Your task to perform on an android device: turn off location history Image 0: 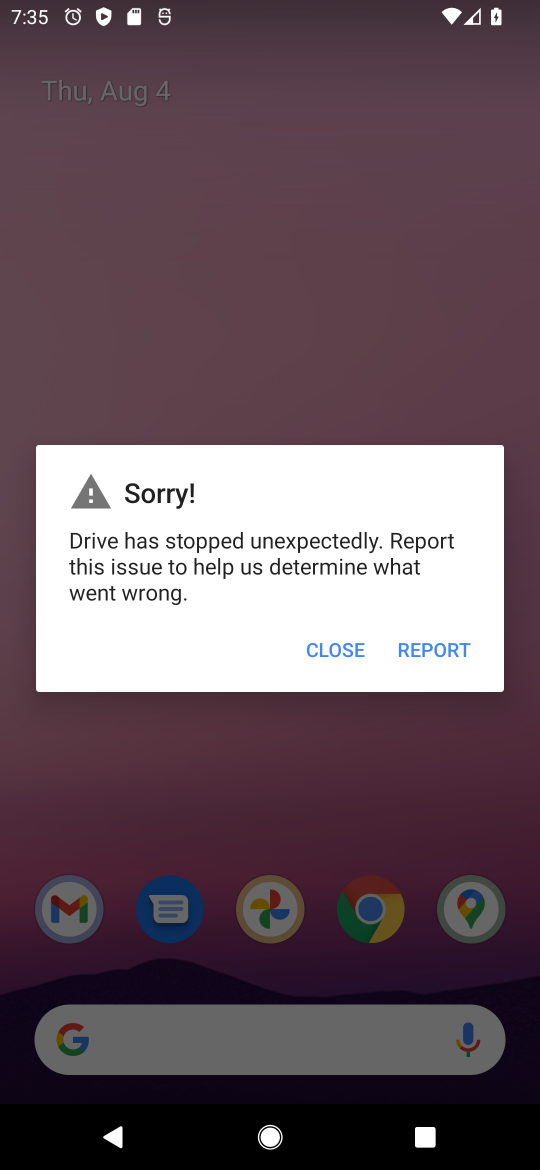
Step 0: click (313, 644)
Your task to perform on an android device: turn off location history Image 1: 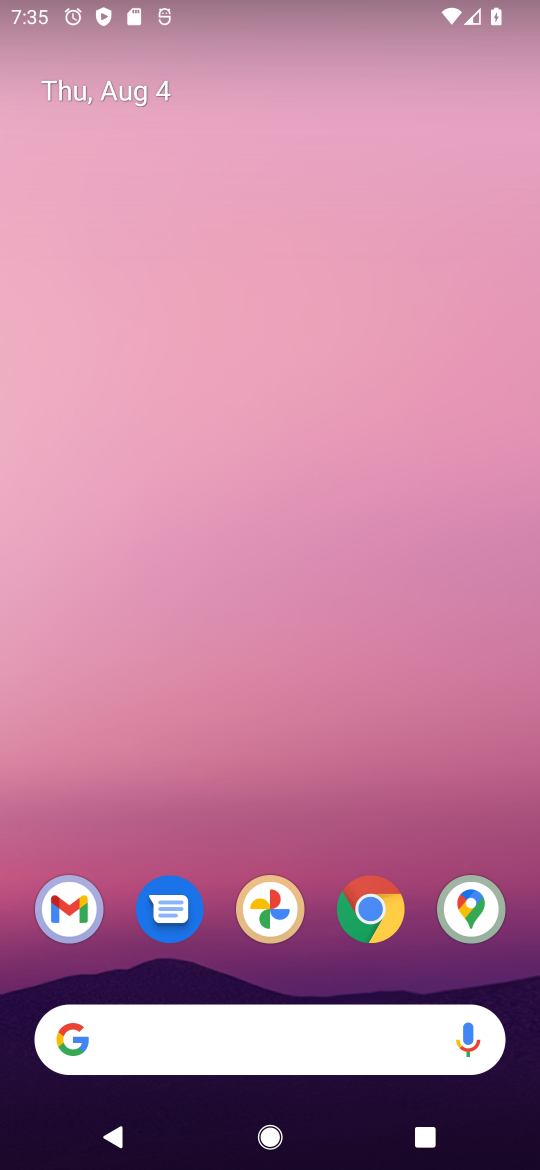
Step 1: drag from (274, 998) to (46, 37)
Your task to perform on an android device: turn off location history Image 2: 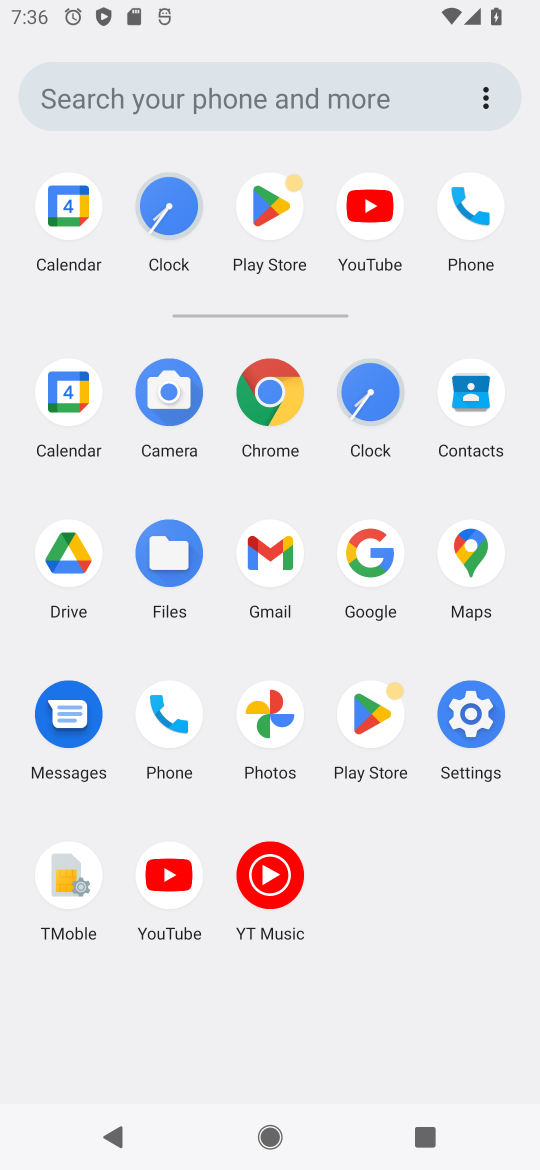
Step 2: click (458, 712)
Your task to perform on an android device: turn off location history Image 3: 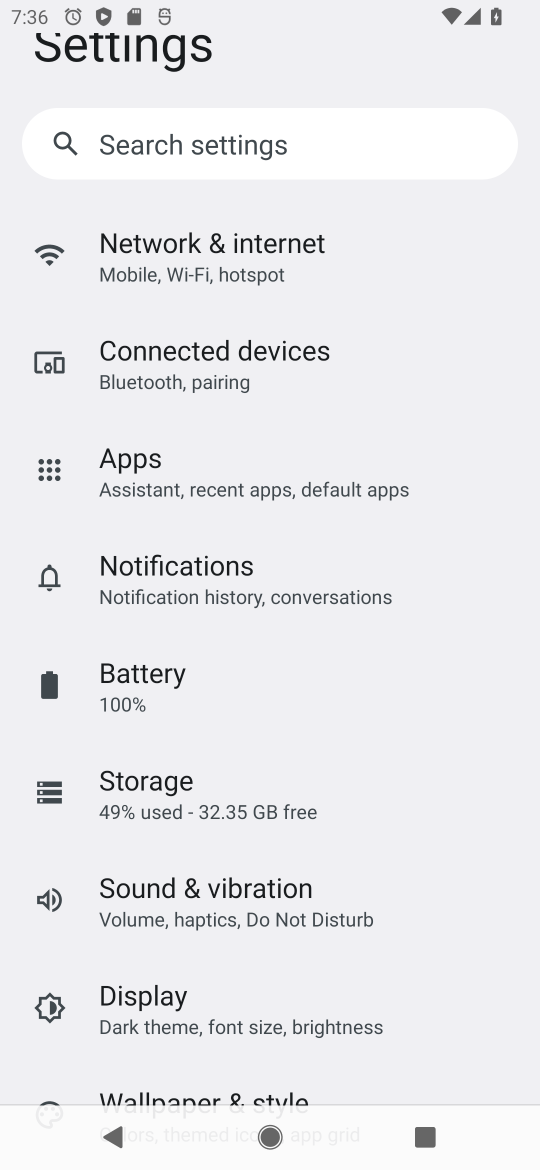
Step 3: drag from (259, 899) to (385, 286)
Your task to perform on an android device: turn off location history Image 4: 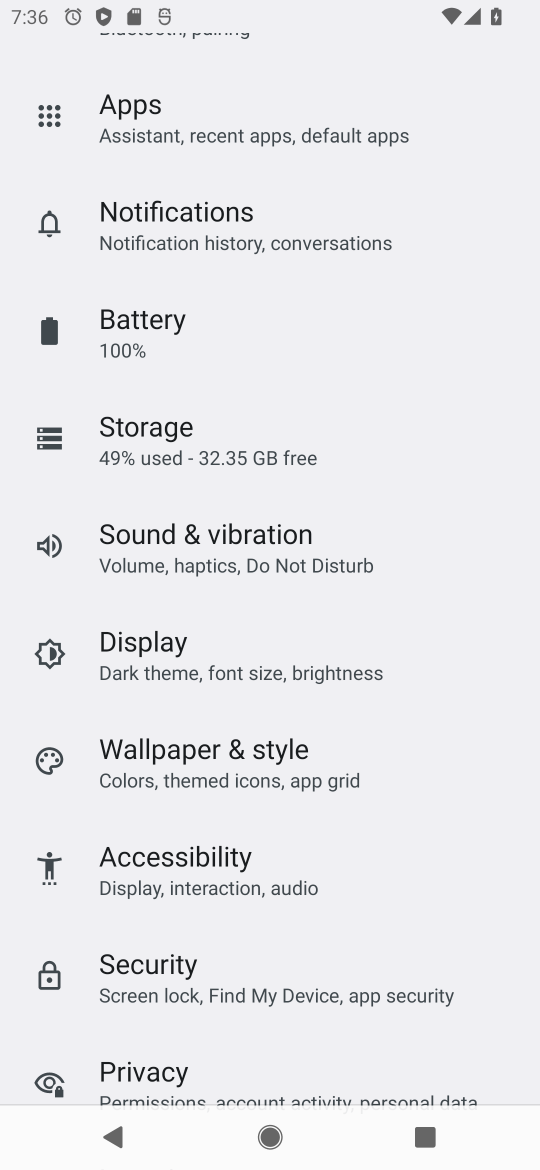
Step 4: drag from (315, 944) to (445, 293)
Your task to perform on an android device: turn off location history Image 5: 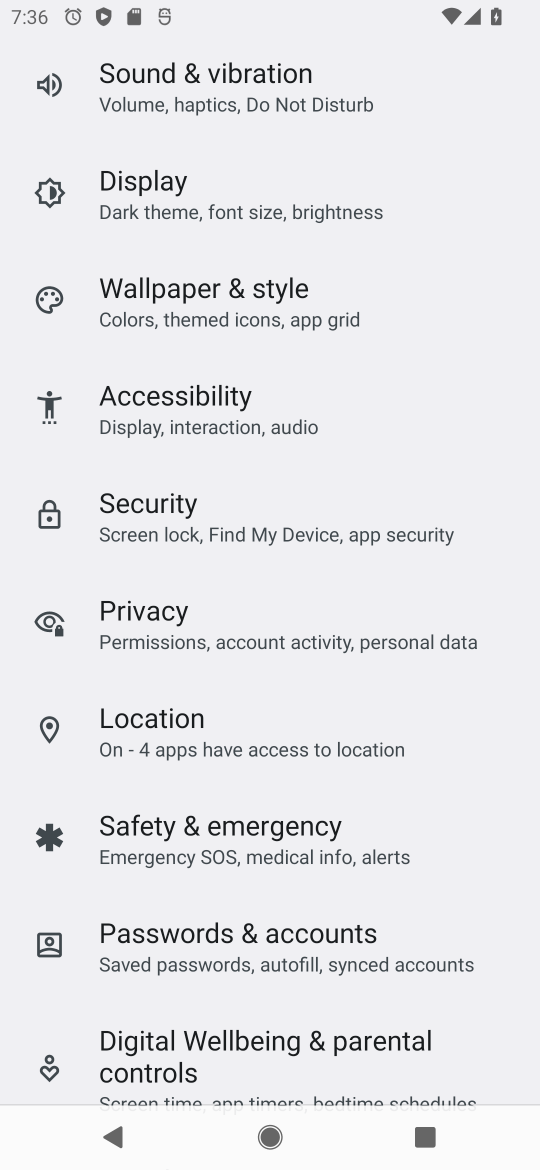
Step 5: click (168, 738)
Your task to perform on an android device: turn off location history Image 6: 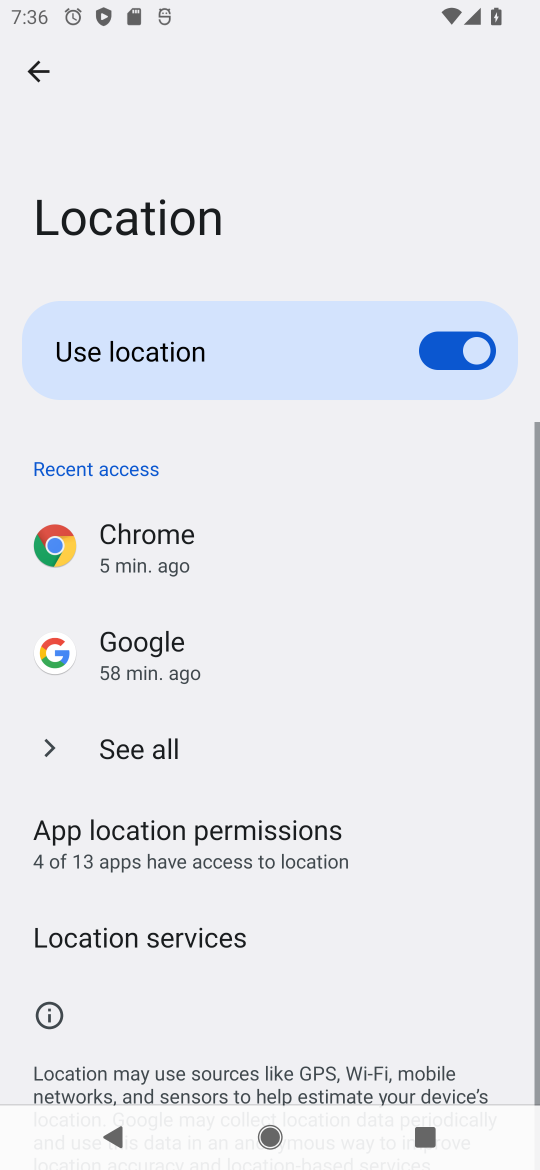
Step 6: click (439, 346)
Your task to perform on an android device: turn off location history Image 7: 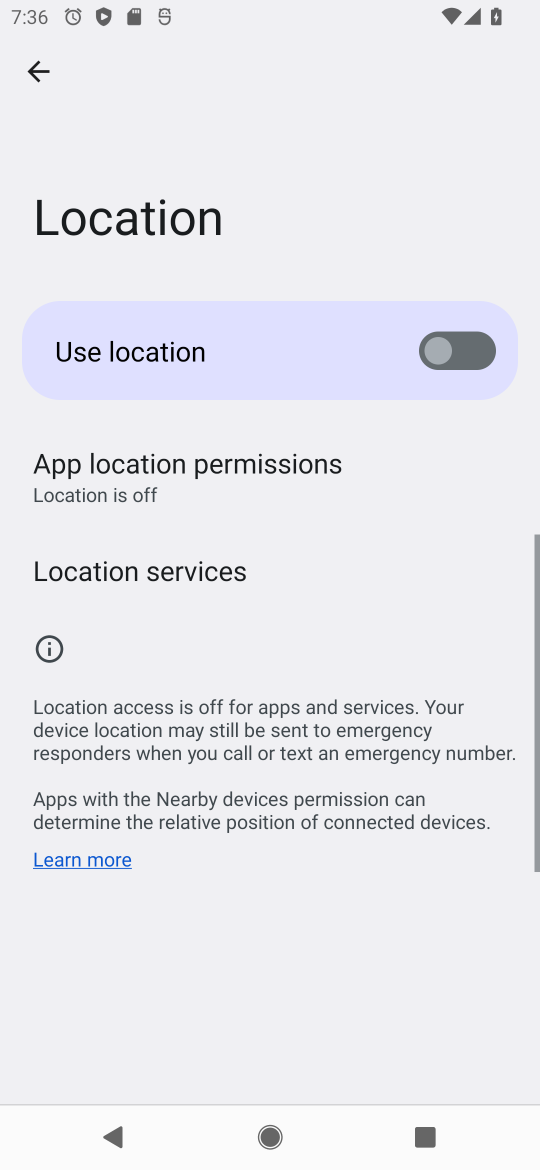
Step 7: task complete